Your task to perform on an android device: see tabs open on other devices in the chrome app Image 0: 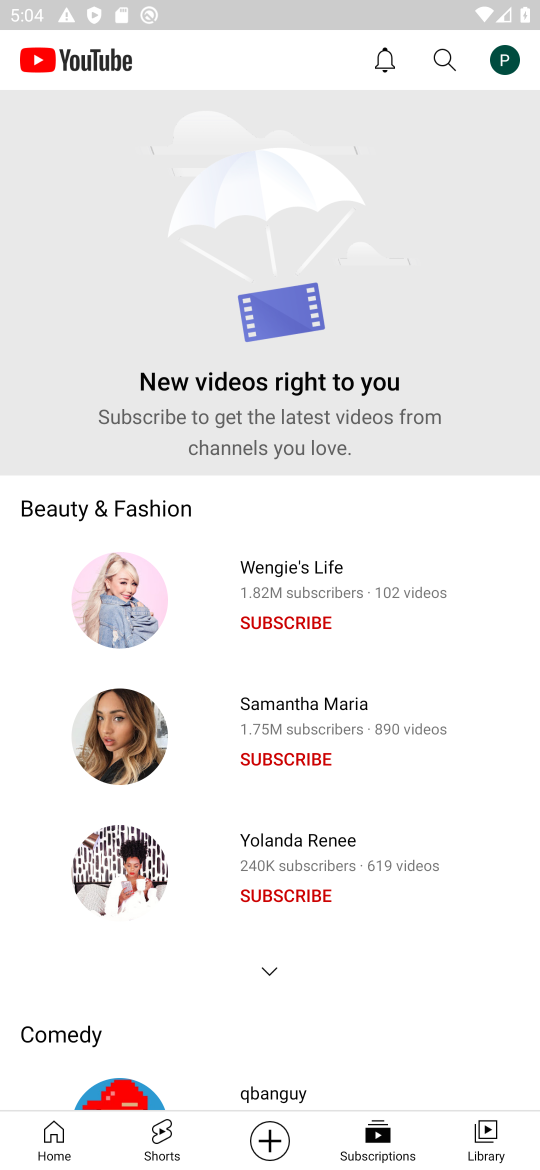
Step 0: press home button
Your task to perform on an android device: see tabs open on other devices in the chrome app Image 1: 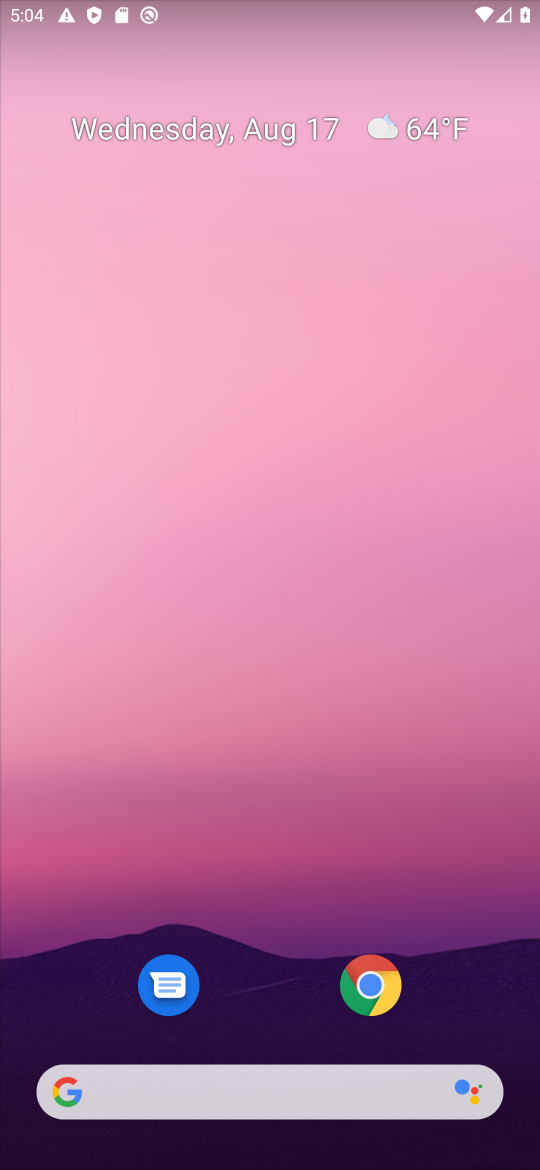
Step 1: click (370, 984)
Your task to perform on an android device: see tabs open on other devices in the chrome app Image 2: 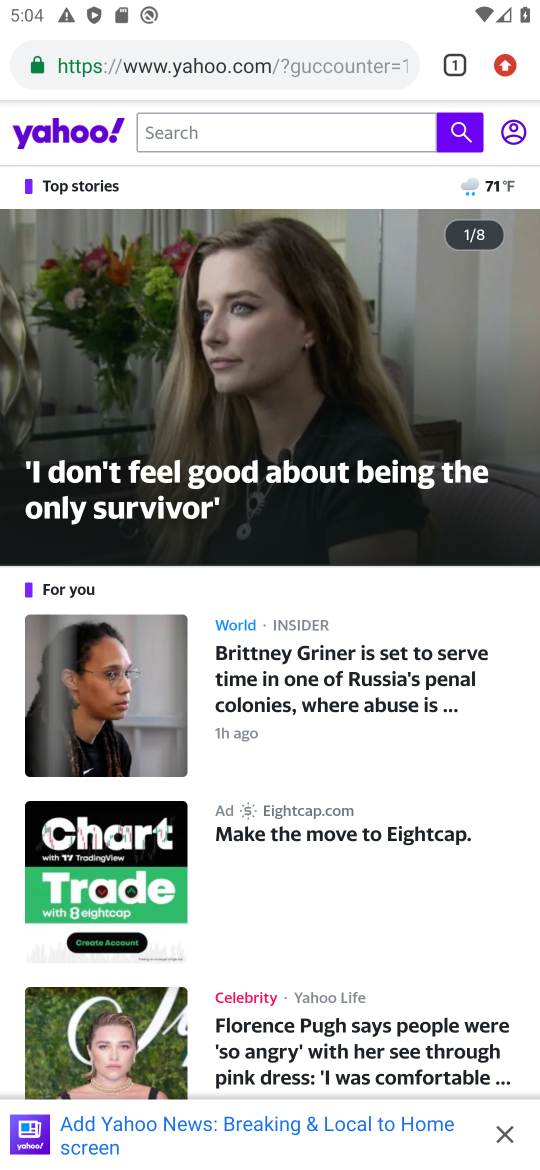
Step 2: click (512, 70)
Your task to perform on an android device: see tabs open on other devices in the chrome app Image 3: 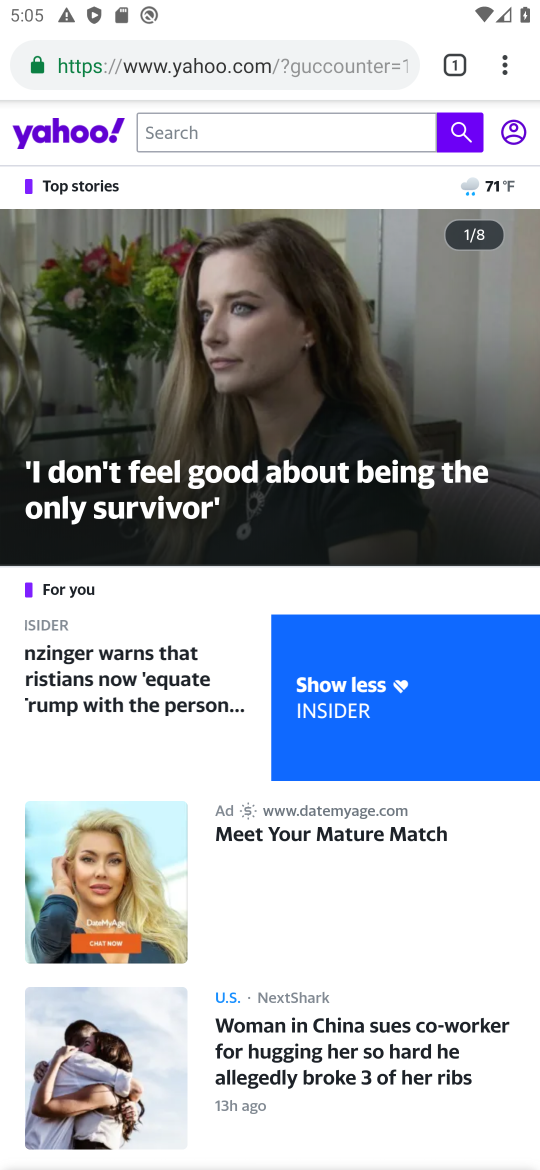
Step 3: task complete